Your task to perform on an android device: change the upload size in google photos Image 0: 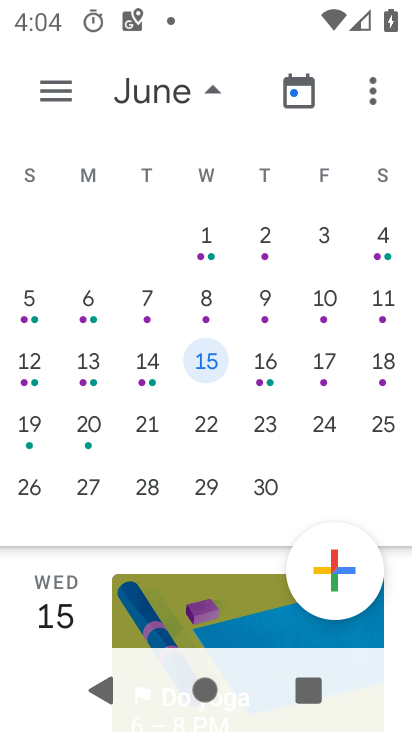
Step 0: press home button
Your task to perform on an android device: change the upload size in google photos Image 1: 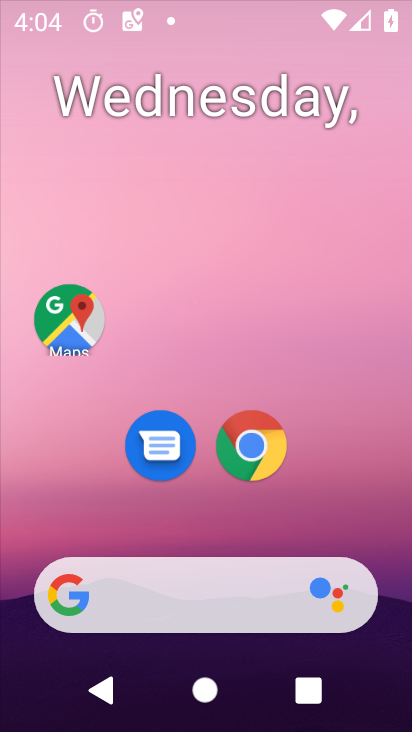
Step 1: drag from (217, 517) to (233, 6)
Your task to perform on an android device: change the upload size in google photos Image 2: 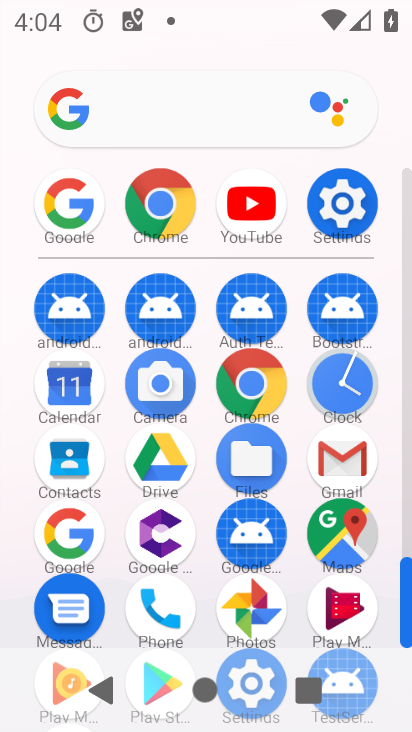
Step 2: click (243, 608)
Your task to perform on an android device: change the upload size in google photos Image 3: 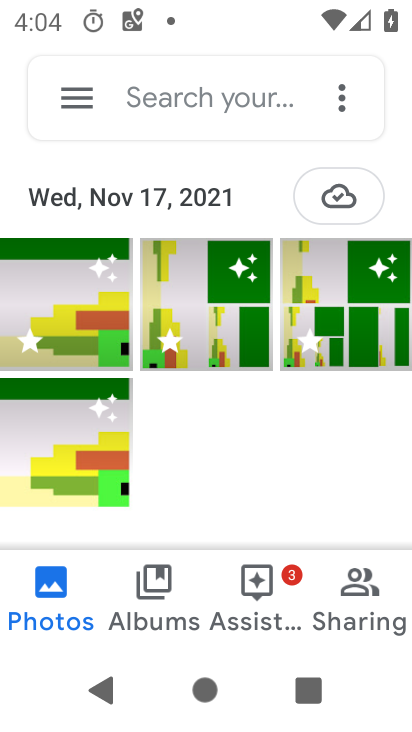
Step 3: click (70, 101)
Your task to perform on an android device: change the upload size in google photos Image 4: 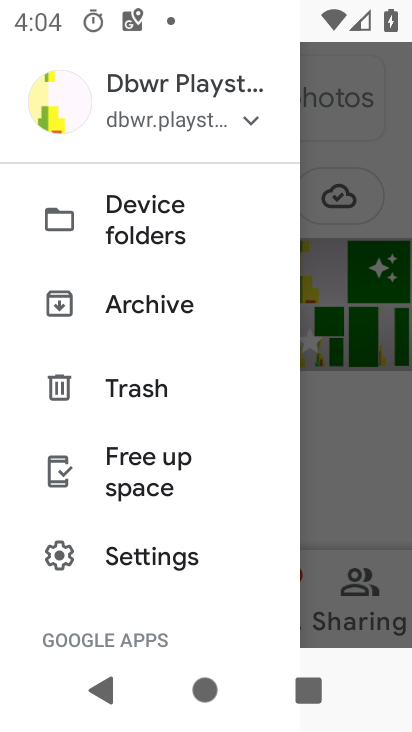
Step 4: click (140, 546)
Your task to perform on an android device: change the upload size in google photos Image 5: 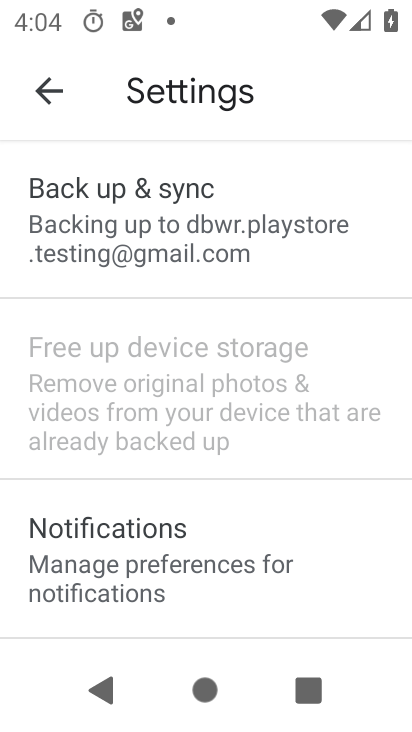
Step 5: click (173, 205)
Your task to perform on an android device: change the upload size in google photos Image 6: 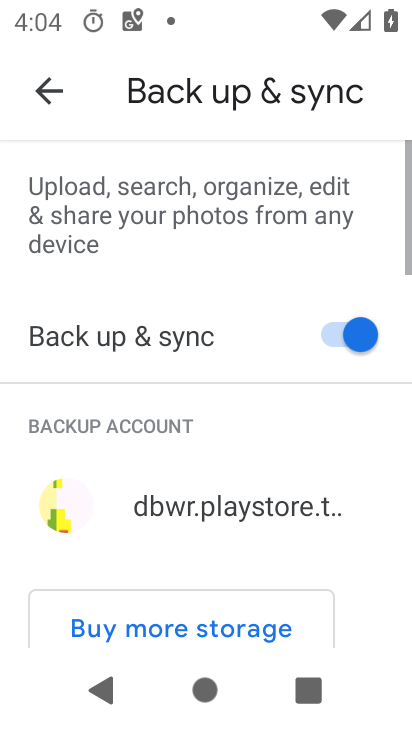
Step 6: drag from (207, 466) to (265, 7)
Your task to perform on an android device: change the upload size in google photos Image 7: 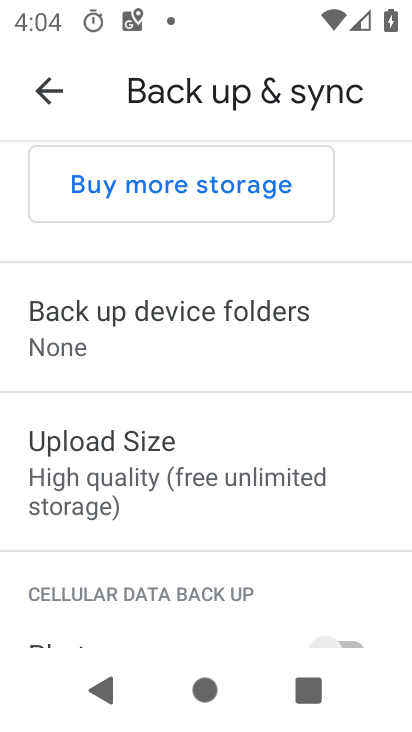
Step 7: click (139, 455)
Your task to perform on an android device: change the upload size in google photos Image 8: 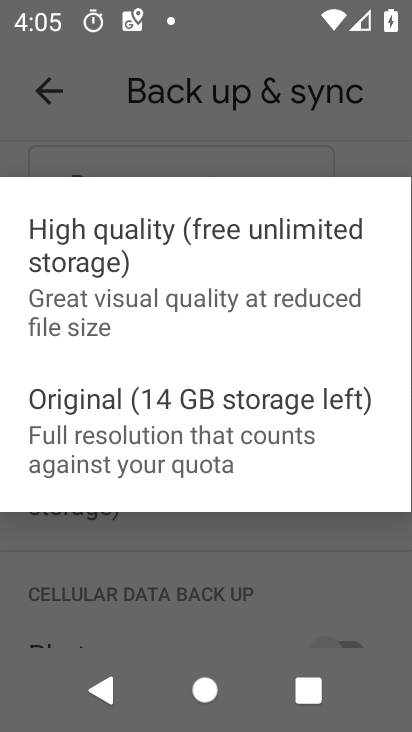
Step 8: click (168, 427)
Your task to perform on an android device: change the upload size in google photos Image 9: 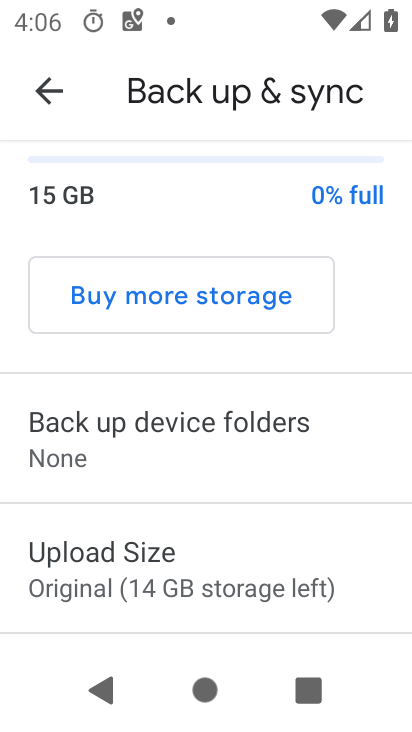
Step 9: task complete